Your task to perform on an android device: toggle location history Image 0: 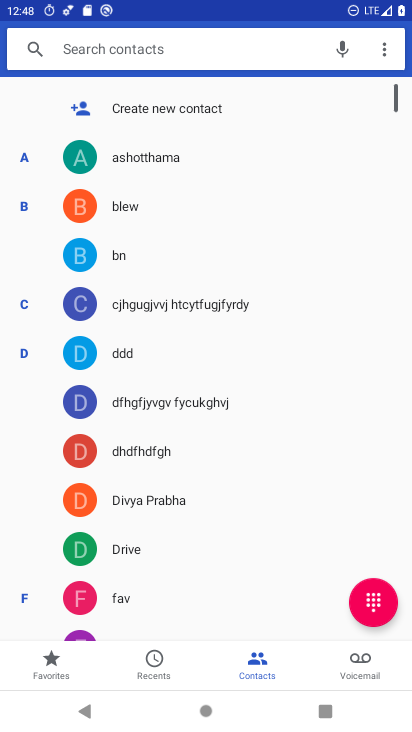
Step 0: press home button
Your task to perform on an android device: toggle location history Image 1: 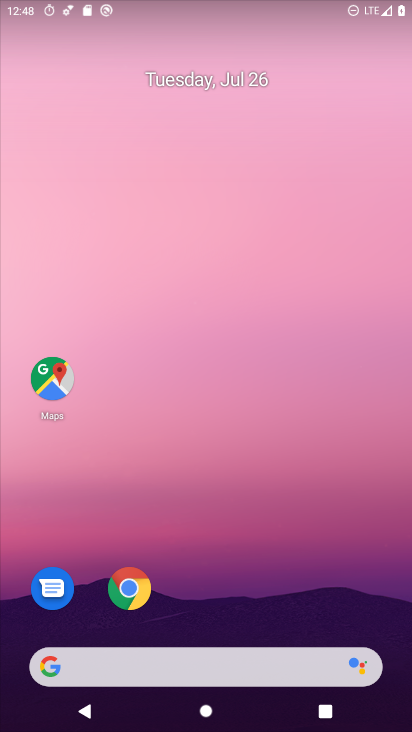
Step 1: drag from (201, 539) to (269, 85)
Your task to perform on an android device: toggle location history Image 2: 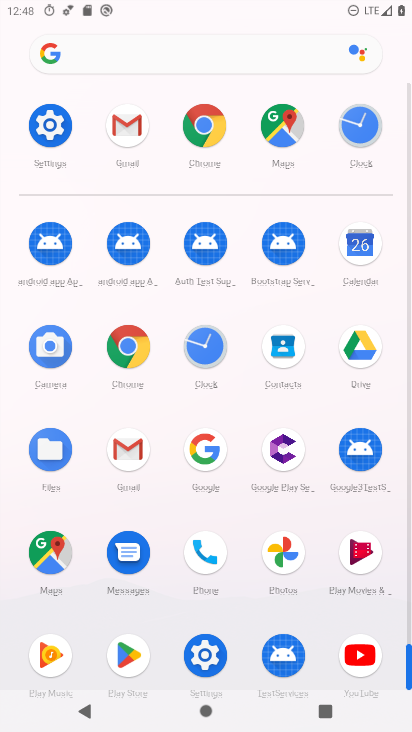
Step 2: click (207, 653)
Your task to perform on an android device: toggle location history Image 3: 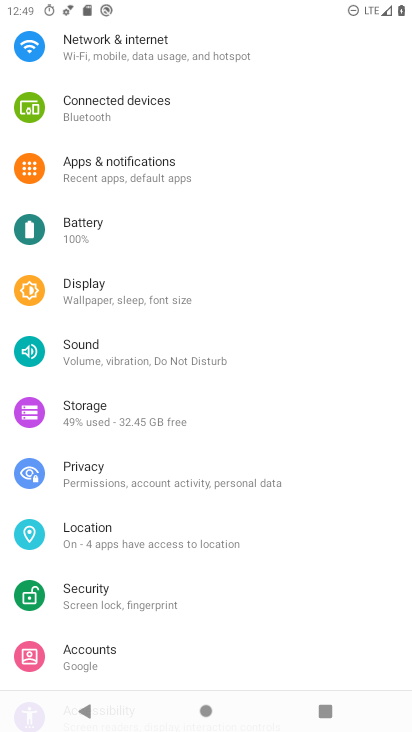
Step 3: click (145, 538)
Your task to perform on an android device: toggle location history Image 4: 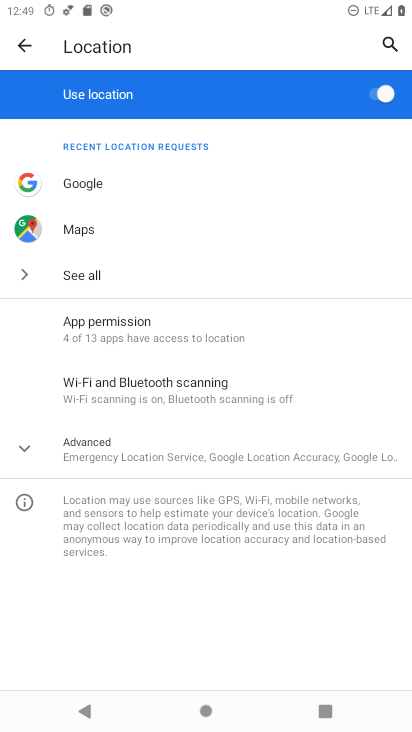
Step 4: click (221, 450)
Your task to perform on an android device: toggle location history Image 5: 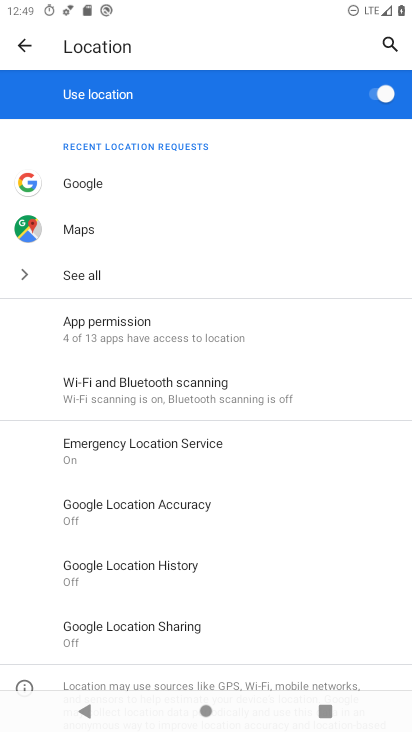
Step 5: click (203, 579)
Your task to perform on an android device: toggle location history Image 6: 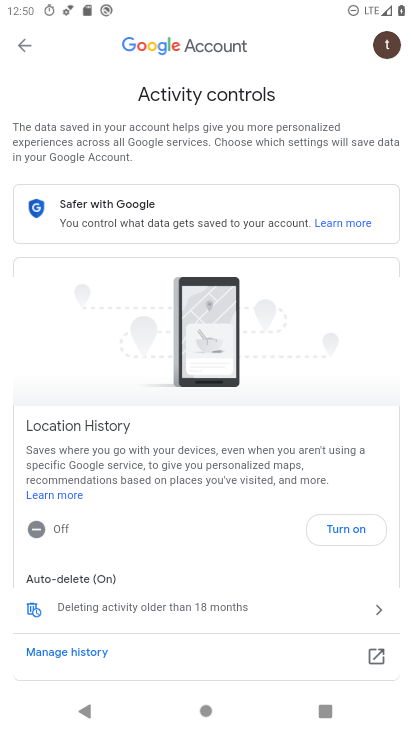
Step 6: click (345, 536)
Your task to perform on an android device: toggle location history Image 7: 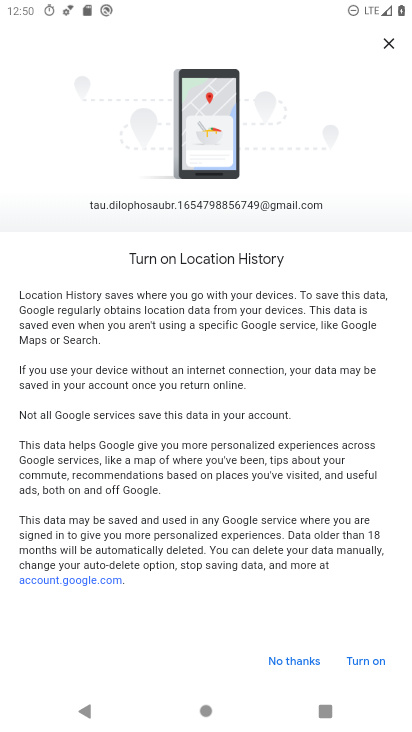
Step 7: drag from (287, 505) to (353, 119)
Your task to perform on an android device: toggle location history Image 8: 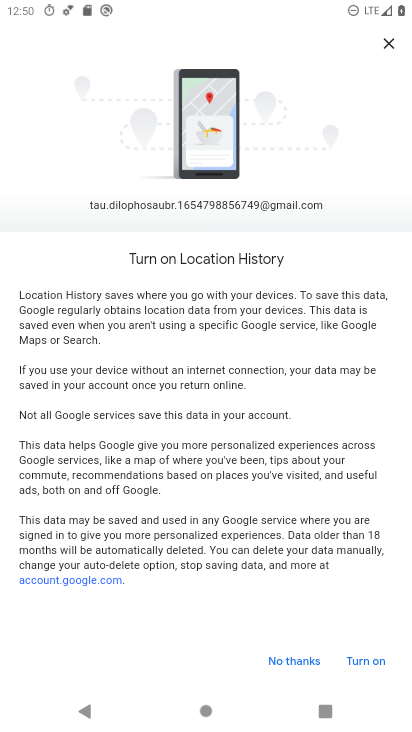
Step 8: drag from (373, 538) to (321, 247)
Your task to perform on an android device: toggle location history Image 9: 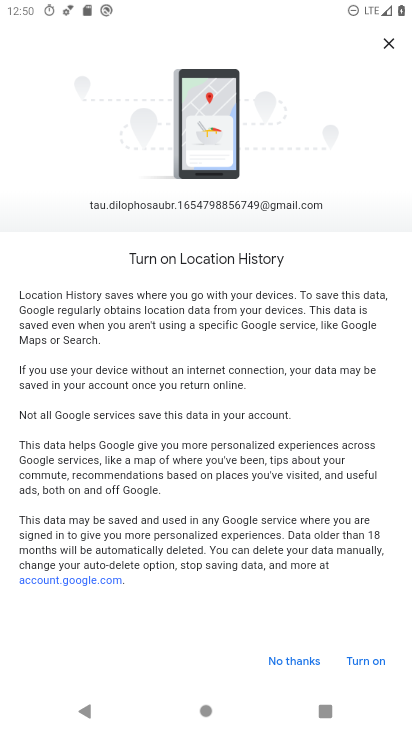
Step 9: click (365, 660)
Your task to perform on an android device: toggle location history Image 10: 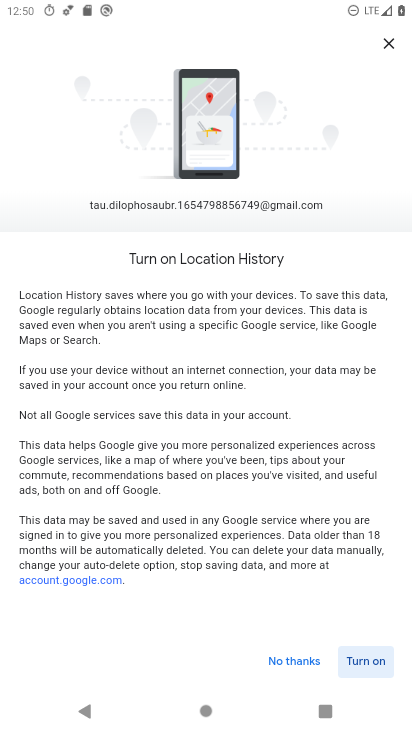
Step 10: click (365, 660)
Your task to perform on an android device: toggle location history Image 11: 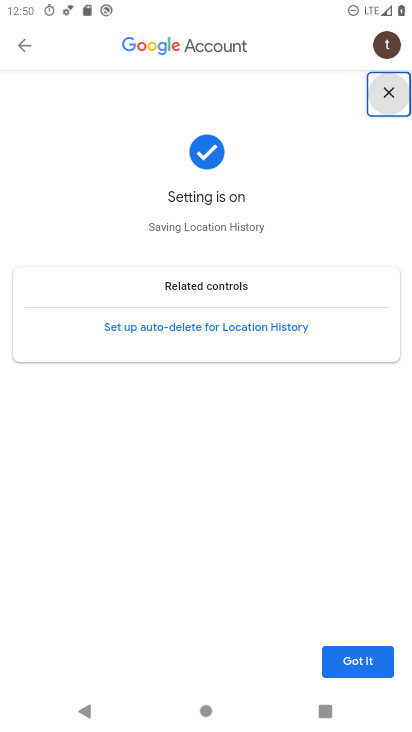
Step 11: click (365, 660)
Your task to perform on an android device: toggle location history Image 12: 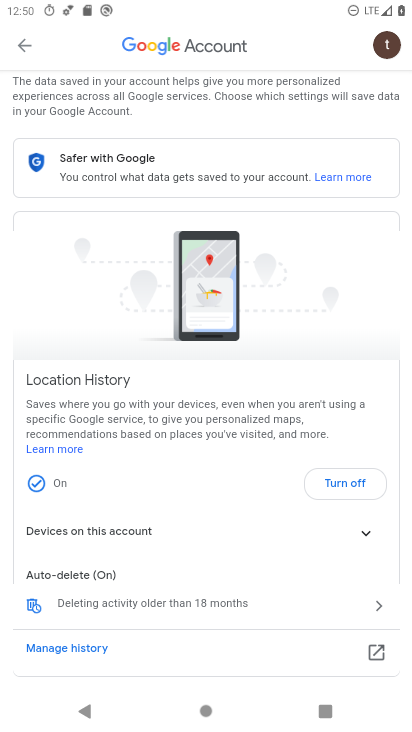
Step 12: task complete